Your task to perform on an android device: See recent photos Image 0: 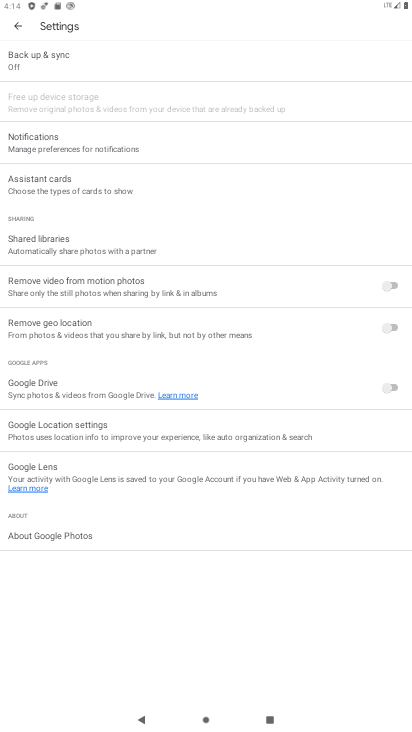
Step 0: click (13, 25)
Your task to perform on an android device: See recent photos Image 1: 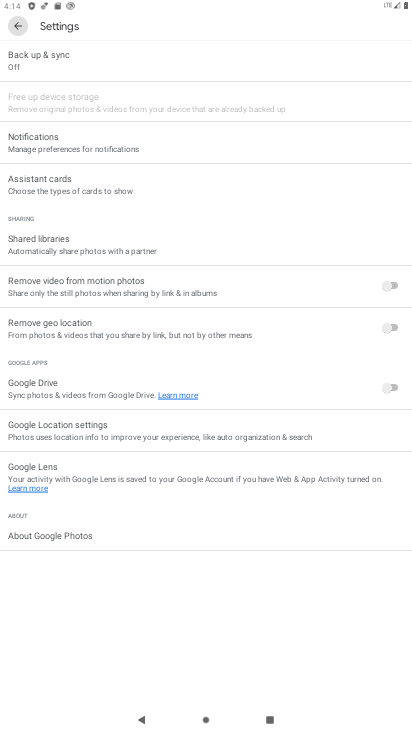
Step 1: click (14, 24)
Your task to perform on an android device: See recent photos Image 2: 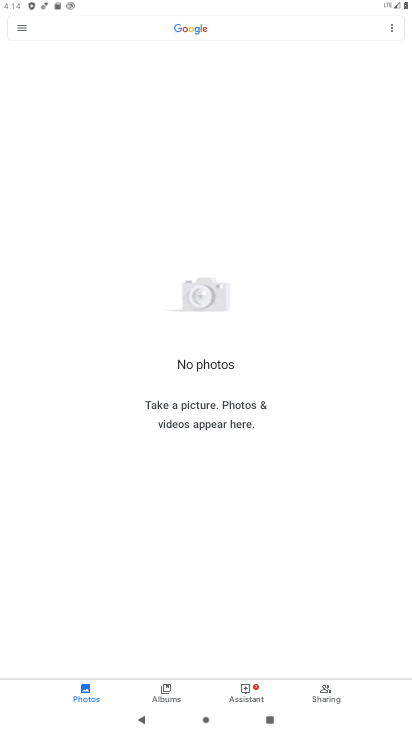
Step 2: press back button
Your task to perform on an android device: See recent photos Image 3: 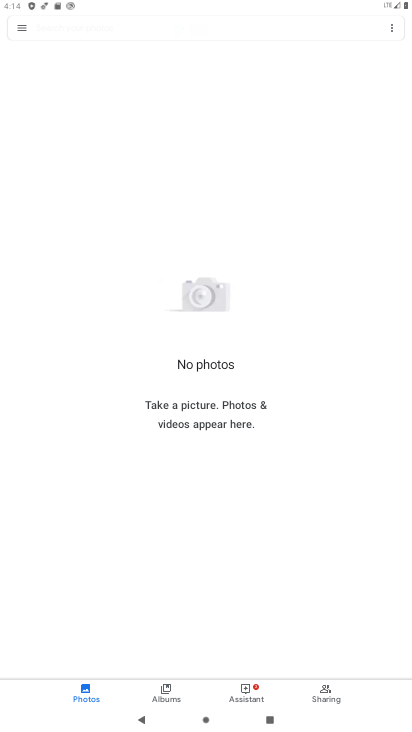
Step 3: press back button
Your task to perform on an android device: See recent photos Image 4: 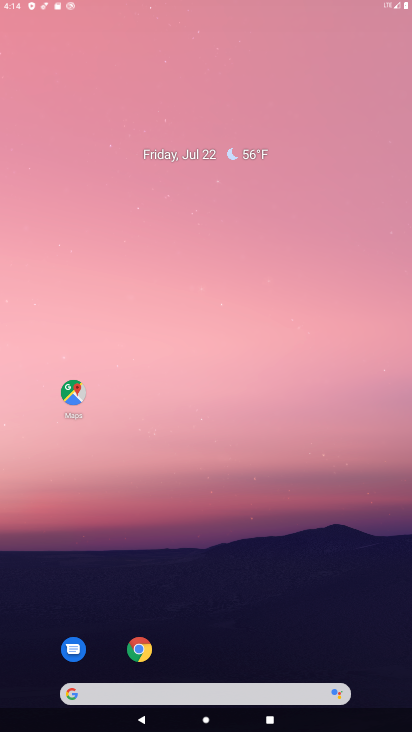
Step 4: drag from (229, 330) to (216, 81)
Your task to perform on an android device: See recent photos Image 5: 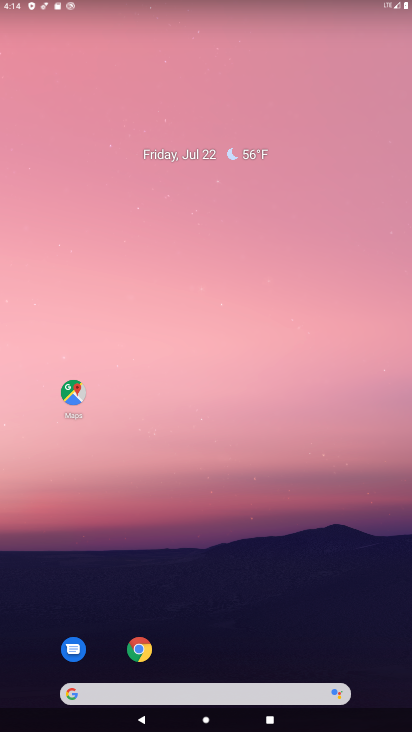
Step 5: drag from (213, 445) to (151, 8)
Your task to perform on an android device: See recent photos Image 6: 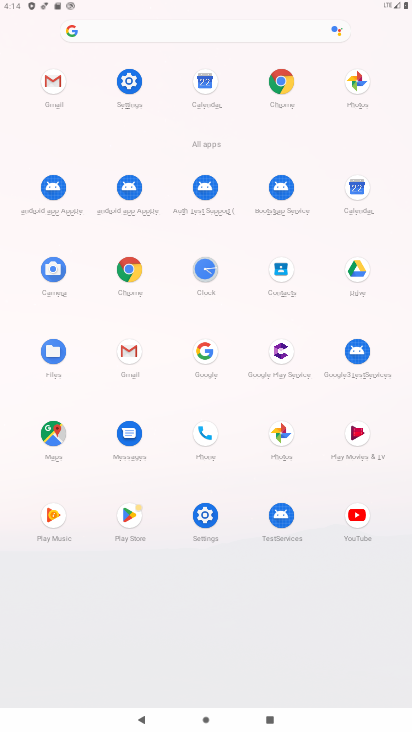
Step 6: click (283, 419)
Your task to perform on an android device: See recent photos Image 7: 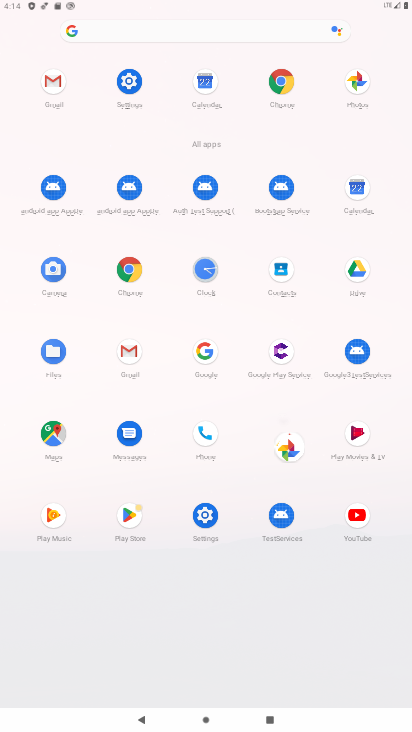
Step 7: click (291, 432)
Your task to perform on an android device: See recent photos Image 8: 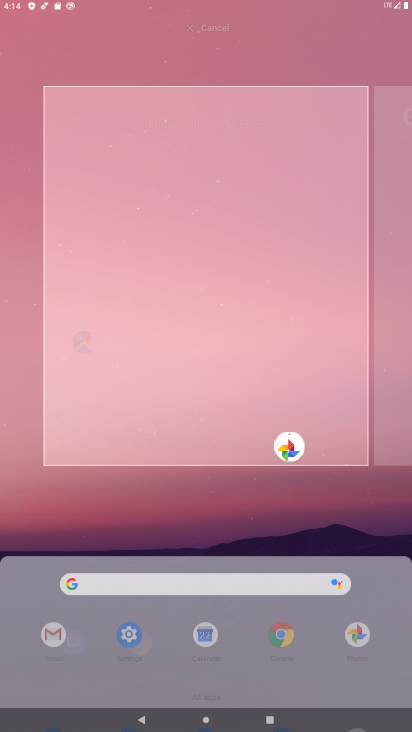
Step 8: click (270, 413)
Your task to perform on an android device: See recent photos Image 9: 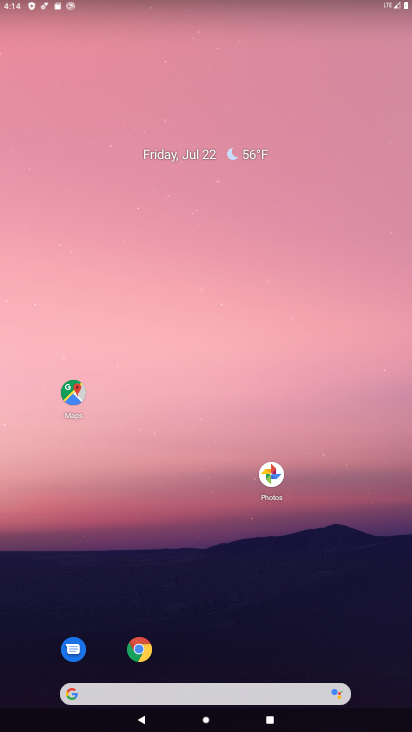
Step 9: drag from (190, 678) to (101, 1)
Your task to perform on an android device: See recent photos Image 10: 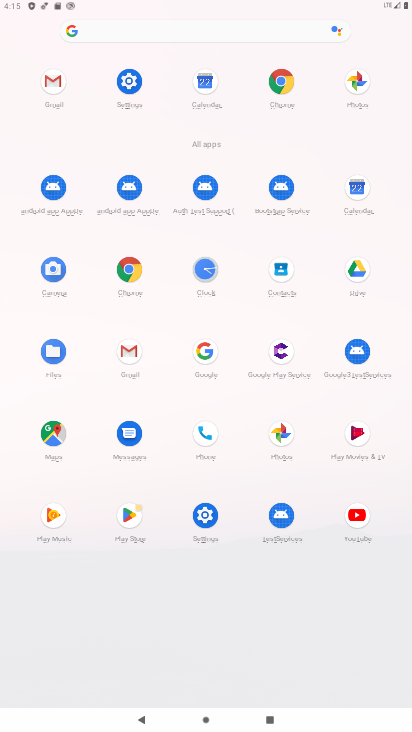
Step 10: click (281, 444)
Your task to perform on an android device: See recent photos Image 11: 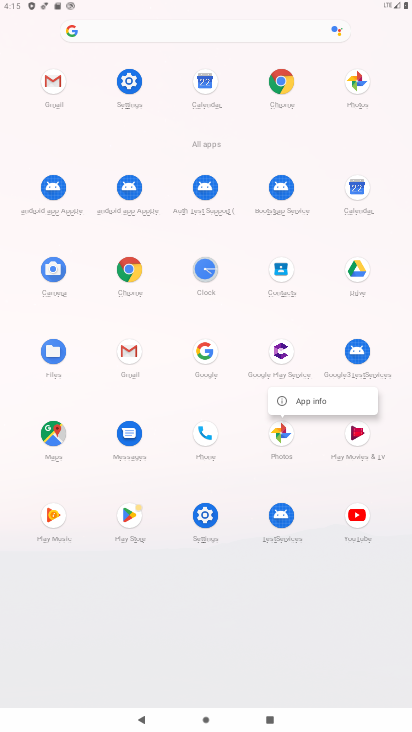
Step 11: click (290, 426)
Your task to perform on an android device: See recent photos Image 12: 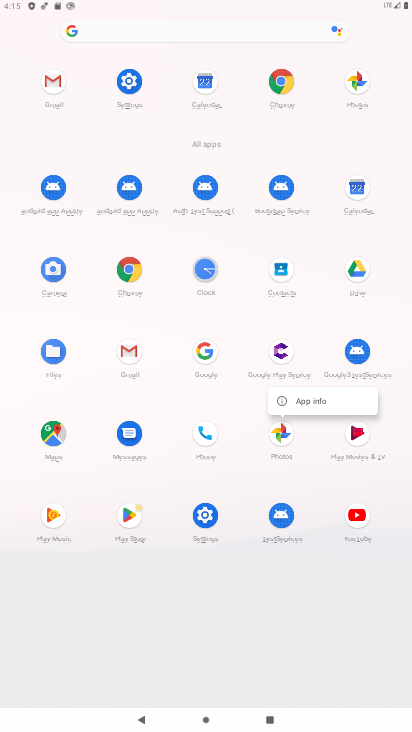
Step 12: click (278, 434)
Your task to perform on an android device: See recent photos Image 13: 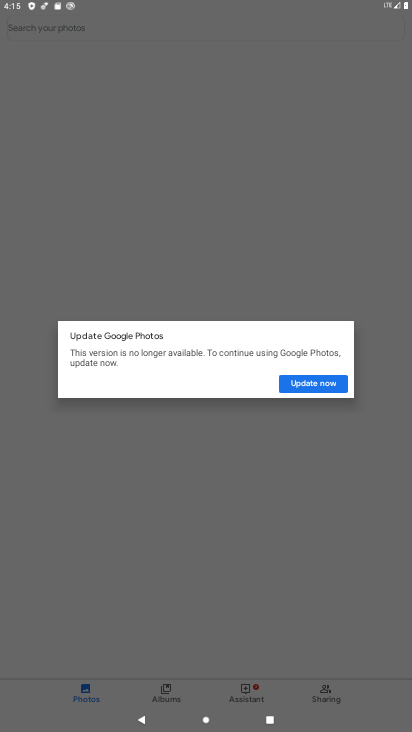
Step 13: click (278, 432)
Your task to perform on an android device: See recent photos Image 14: 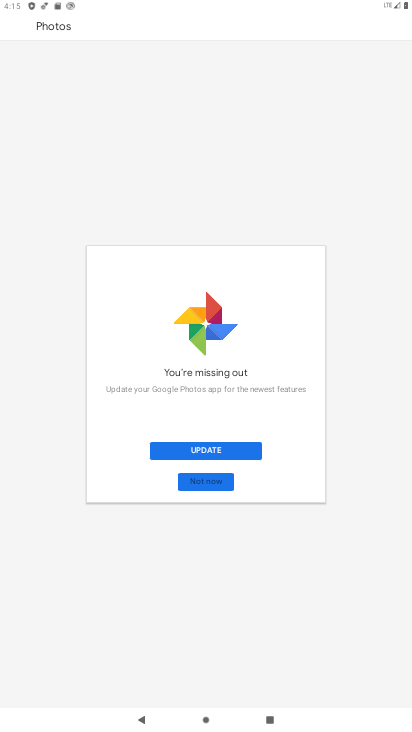
Step 14: click (189, 488)
Your task to perform on an android device: See recent photos Image 15: 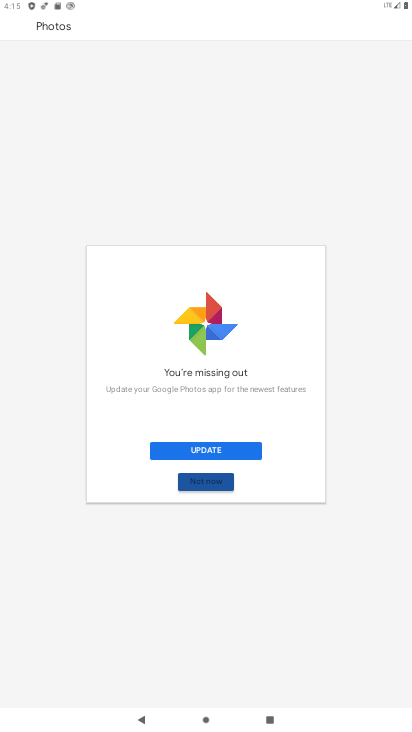
Step 15: click (192, 484)
Your task to perform on an android device: See recent photos Image 16: 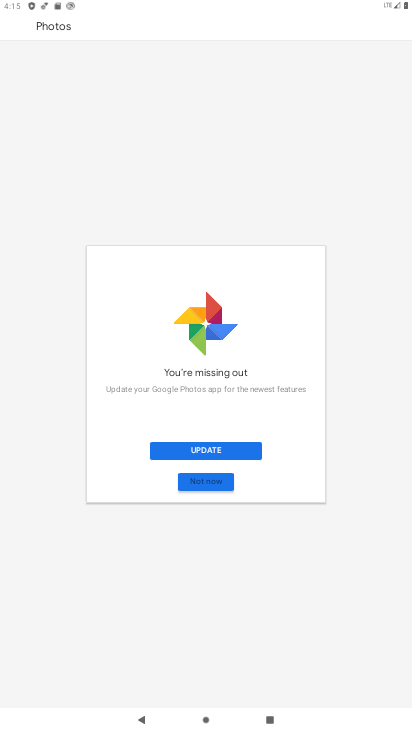
Step 16: click (196, 483)
Your task to perform on an android device: See recent photos Image 17: 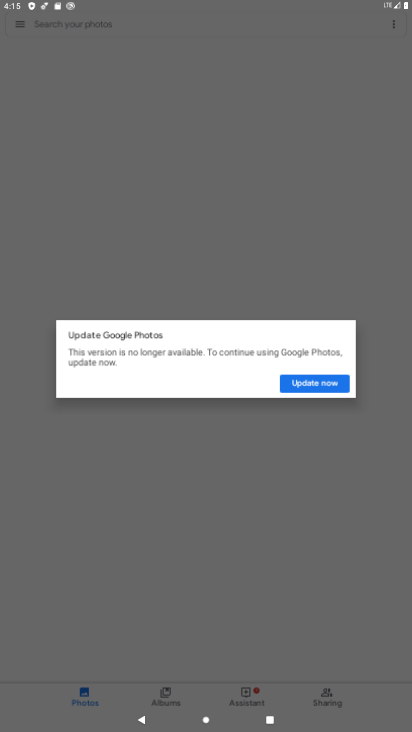
Step 17: click (203, 482)
Your task to perform on an android device: See recent photos Image 18: 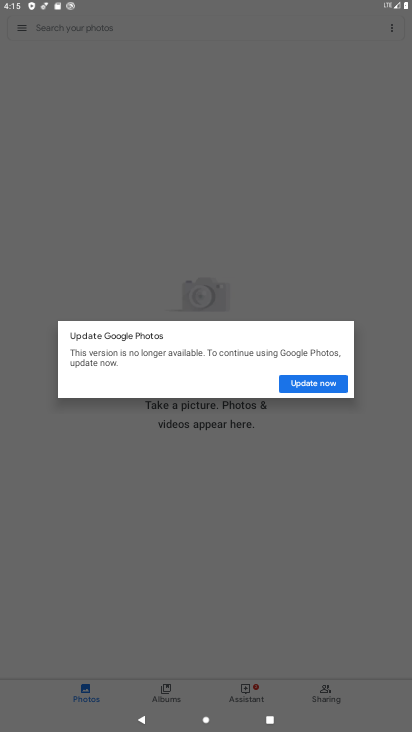
Step 18: click (206, 482)
Your task to perform on an android device: See recent photos Image 19: 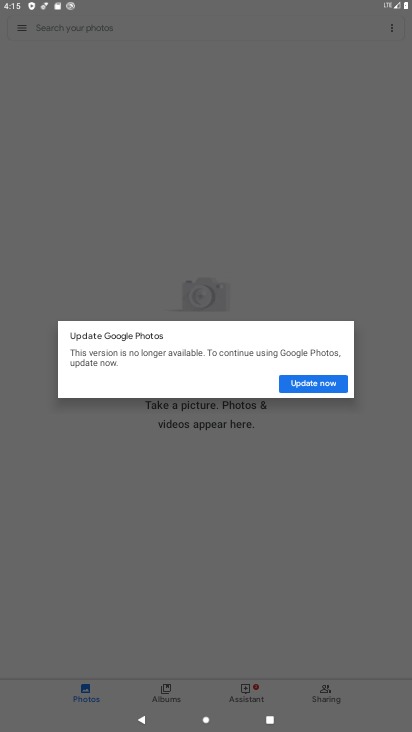
Step 19: click (289, 163)
Your task to perform on an android device: See recent photos Image 20: 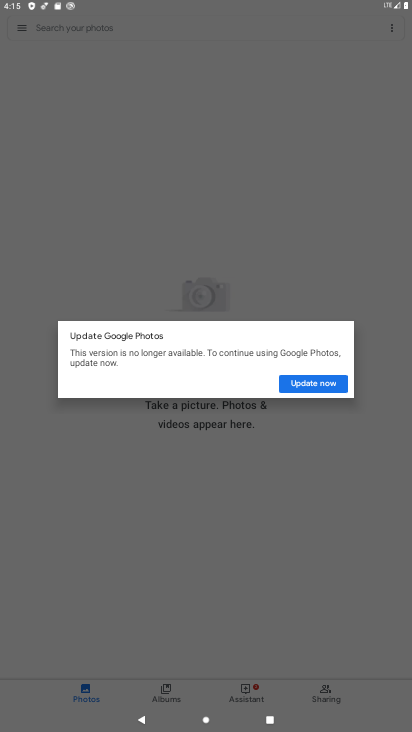
Step 20: click (291, 166)
Your task to perform on an android device: See recent photos Image 21: 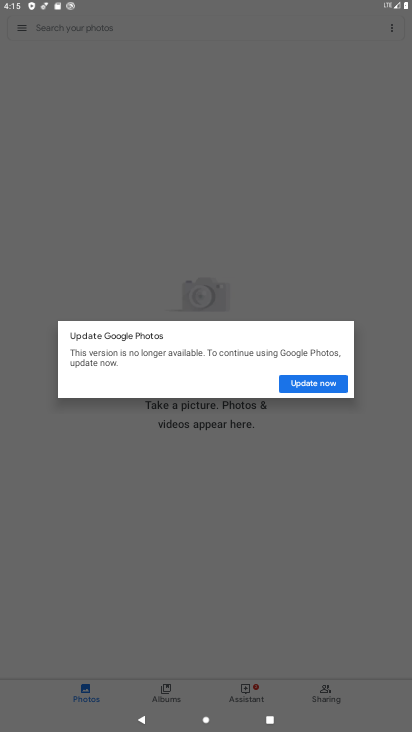
Step 21: click (291, 166)
Your task to perform on an android device: See recent photos Image 22: 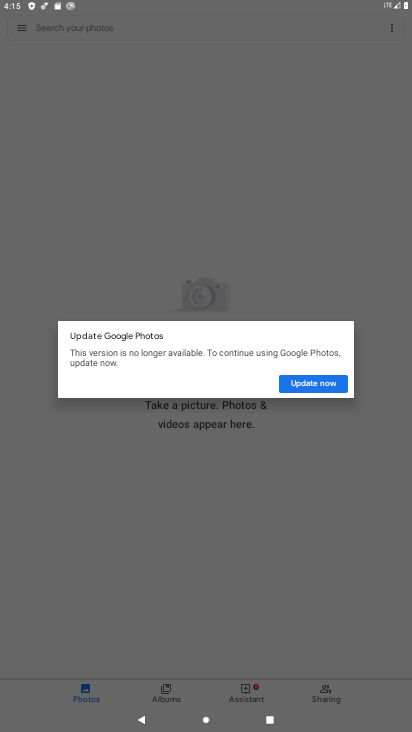
Step 22: click (291, 163)
Your task to perform on an android device: See recent photos Image 23: 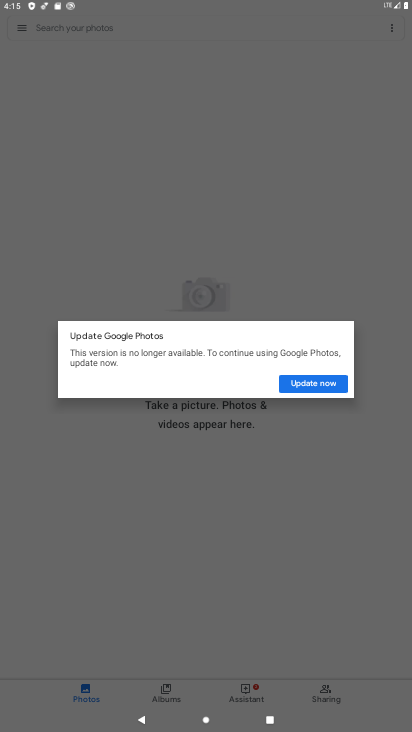
Step 23: click (304, 159)
Your task to perform on an android device: See recent photos Image 24: 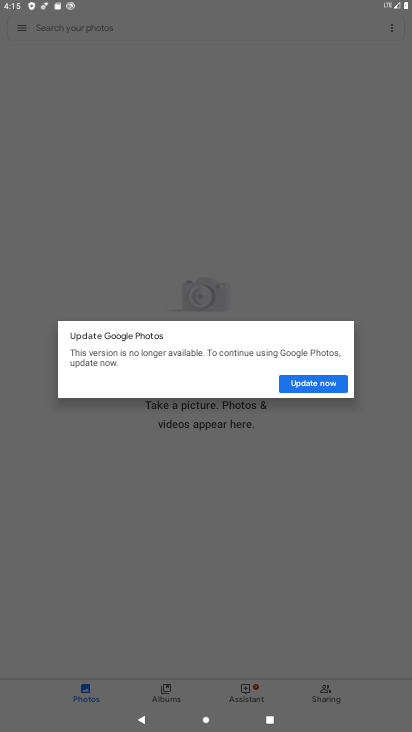
Step 24: click (295, 169)
Your task to perform on an android device: See recent photos Image 25: 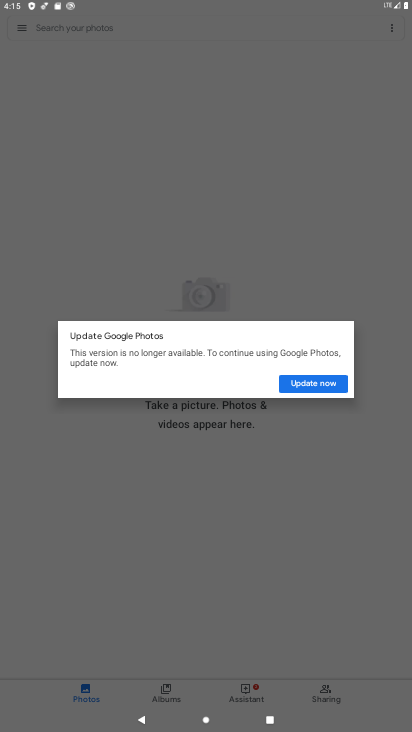
Step 25: click (294, 168)
Your task to perform on an android device: See recent photos Image 26: 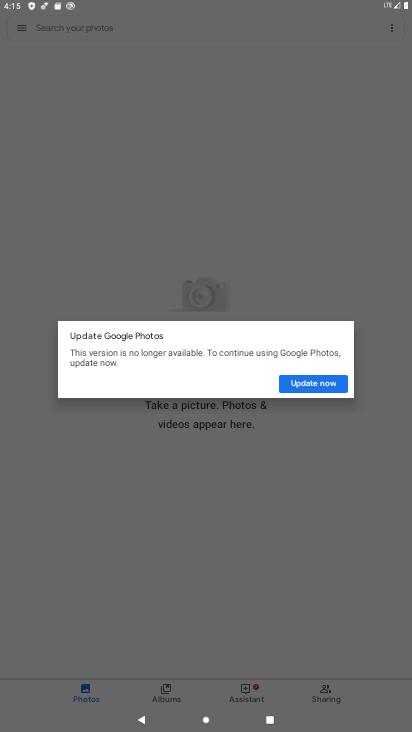
Step 26: click (294, 168)
Your task to perform on an android device: See recent photos Image 27: 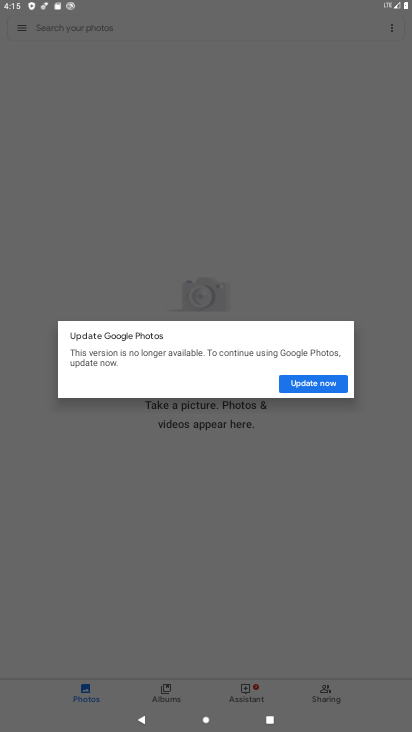
Step 27: task complete